Your task to perform on an android device: turn on bluetooth scan Image 0: 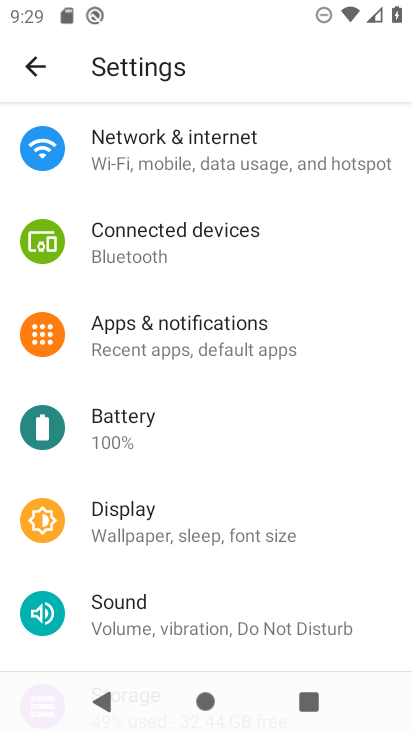
Step 0: drag from (277, 581) to (274, 300)
Your task to perform on an android device: turn on bluetooth scan Image 1: 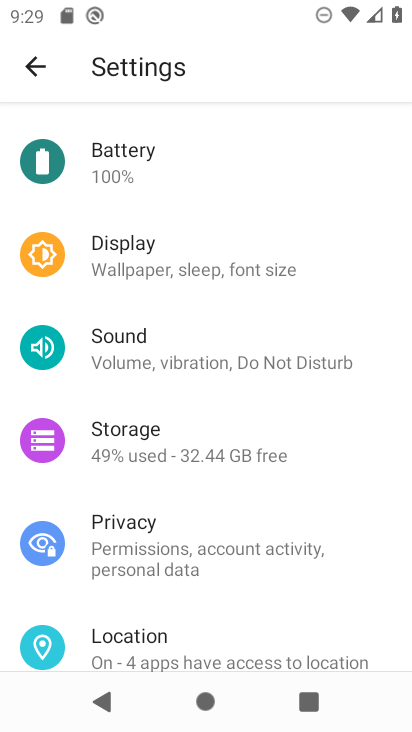
Step 1: click (181, 631)
Your task to perform on an android device: turn on bluetooth scan Image 2: 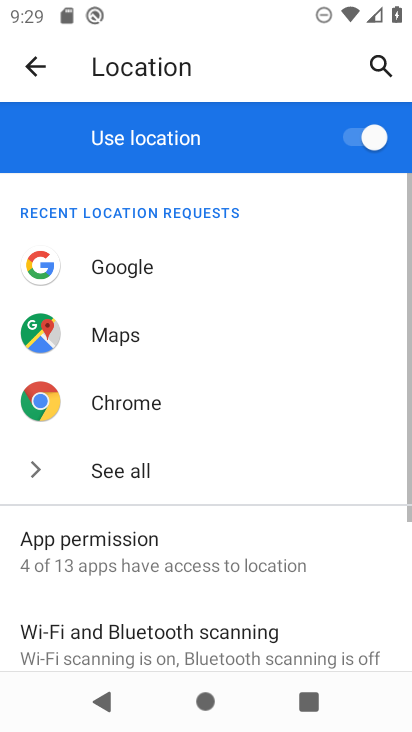
Step 2: click (273, 640)
Your task to perform on an android device: turn on bluetooth scan Image 3: 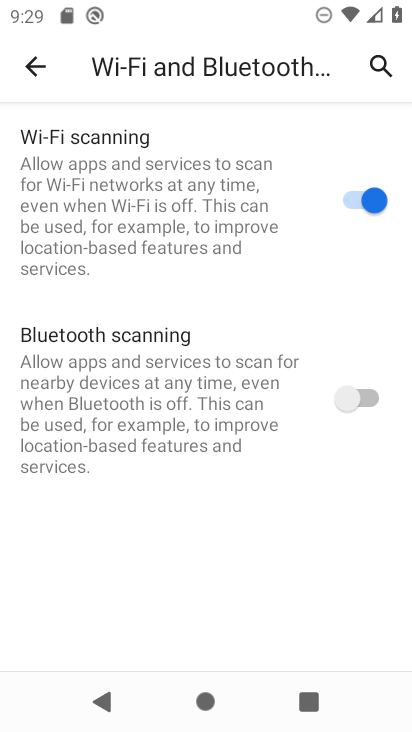
Step 3: click (372, 388)
Your task to perform on an android device: turn on bluetooth scan Image 4: 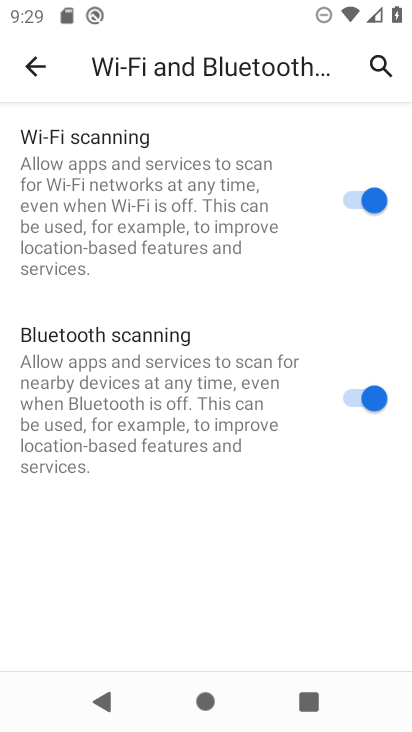
Step 4: task complete